Your task to perform on an android device: Go to internet settings Image 0: 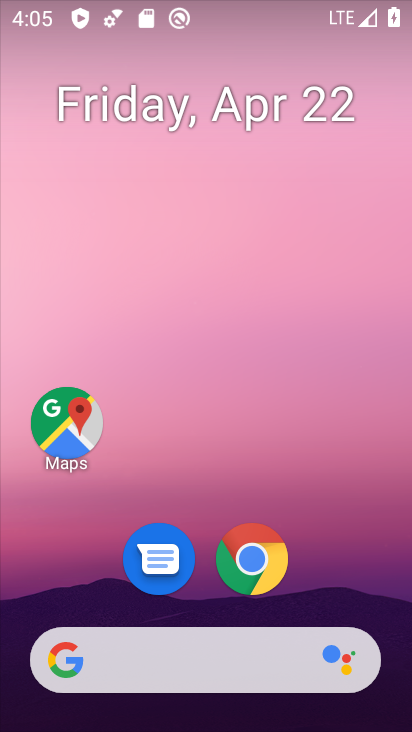
Step 0: drag from (308, 584) to (262, 142)
Your task to perform on an android device: Go to internet settings Image 1: 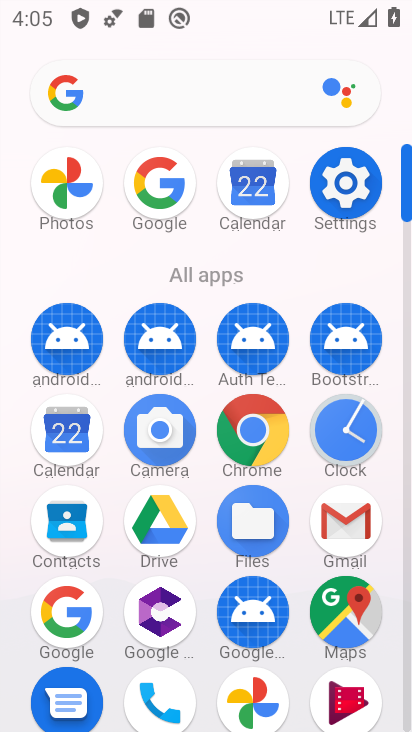
Step 1: click (357, 174)
Your task to perform on an android device: Go to internet settings Image 2: 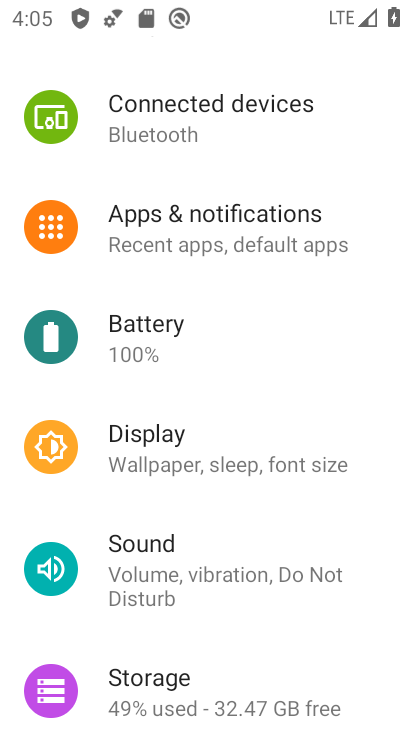
Step 2: drag from (248, 178) to (248, 558)
Your task to perform on an android device: Go to internet settings Image 3: 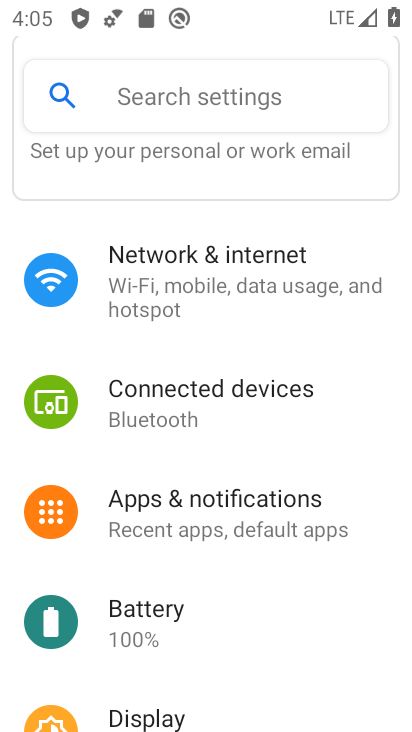
Step 3: click (230, 286)
Your task to perform on an android device: Go to internet settings Image 4: 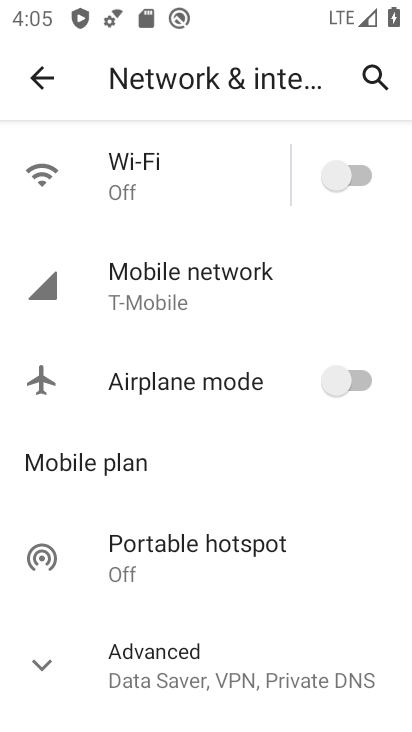
Step 4: task complete